Your task to perform on an android device: Open Google Chrome and open the bookmarks view Image 0: 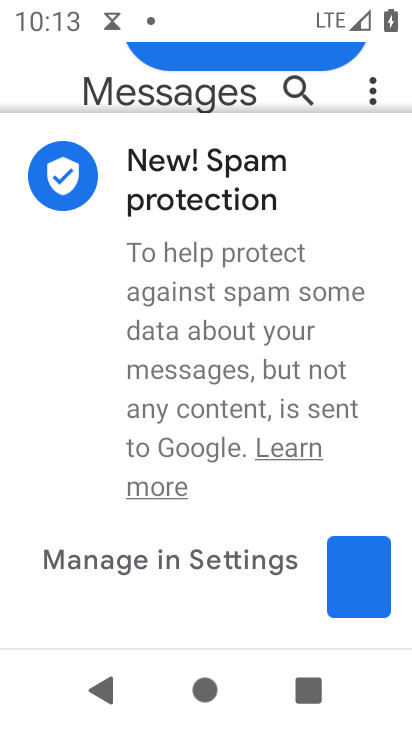
Step 0: press home button
Your task to perform on an android device: Open Google Chrome and open the bookmarks view Image 1: 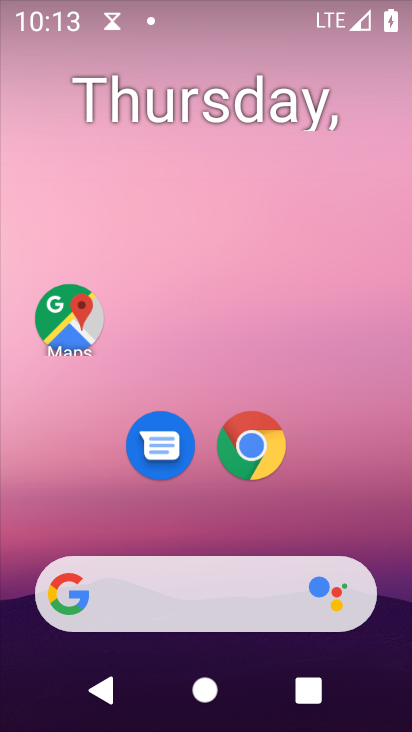
Step 1: drag from (374, 539) to (252, 9)
Your task to perform on an android device: Open Google Chrome and open the bookmarks view Image 2: 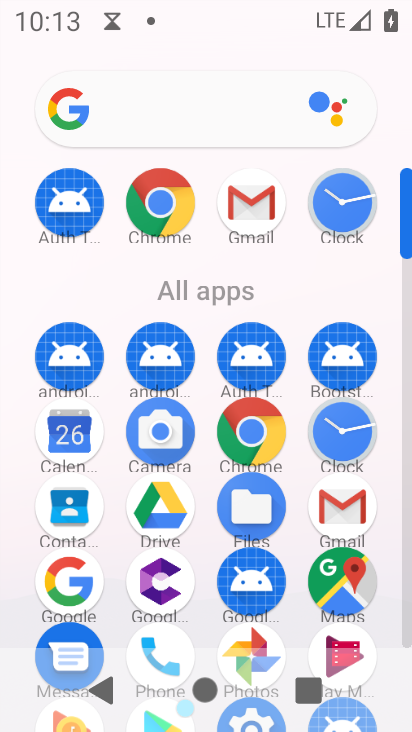
Step 2: click (162, 208)
Your task to perform on an android device: Open Google Chrome and open the bookmarks view Image 3: 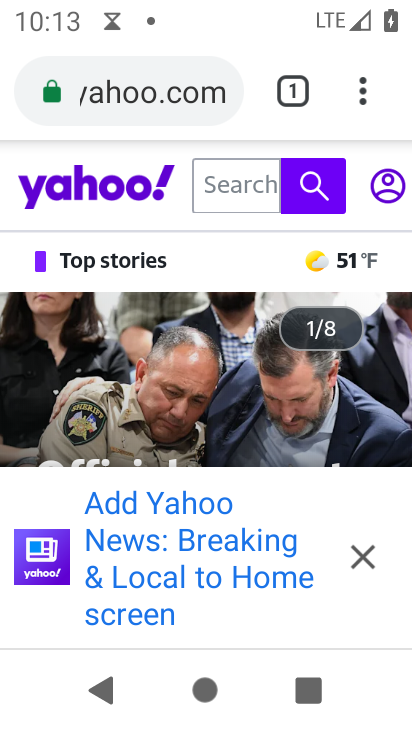
Step 3: click (358, 107)
Your task to perform on an android device: Open Google Chrome and open the bookmarks view Image 4: 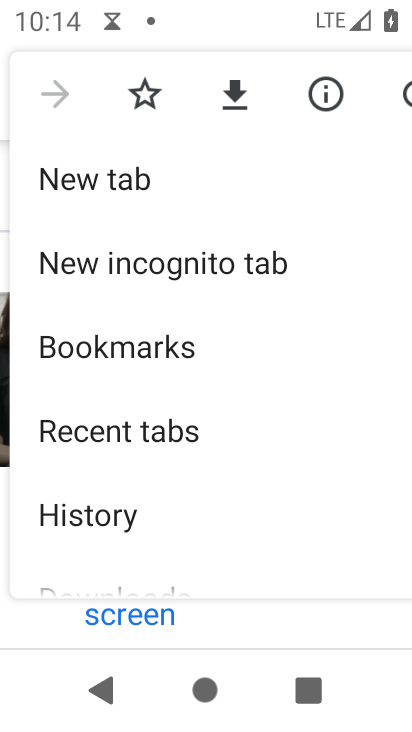
Step 4: click (223, 354)
Your task to perform on an android device: Open Google Chrome and open the bookmarks view Image 5: 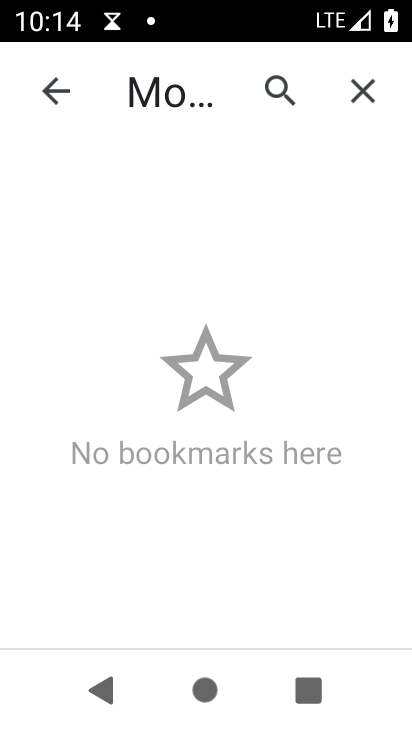
Step 5: task complete